Your task to perform on an android device: Go to calendar. Show me events next week Image 0: 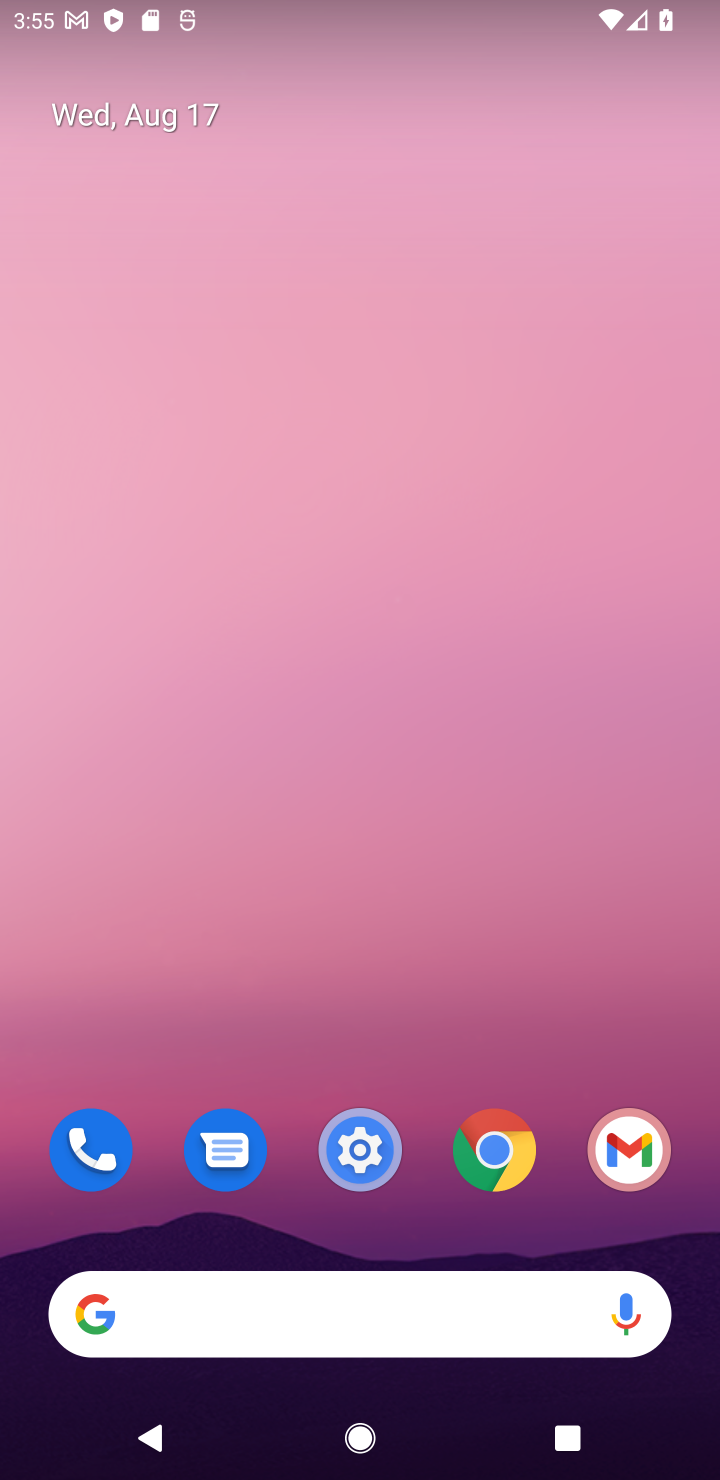
Step 0: drag from (688, 1183) to (351, 10)
Your task to perform on an android device: Go to calendar. Show me events next week Image 1: 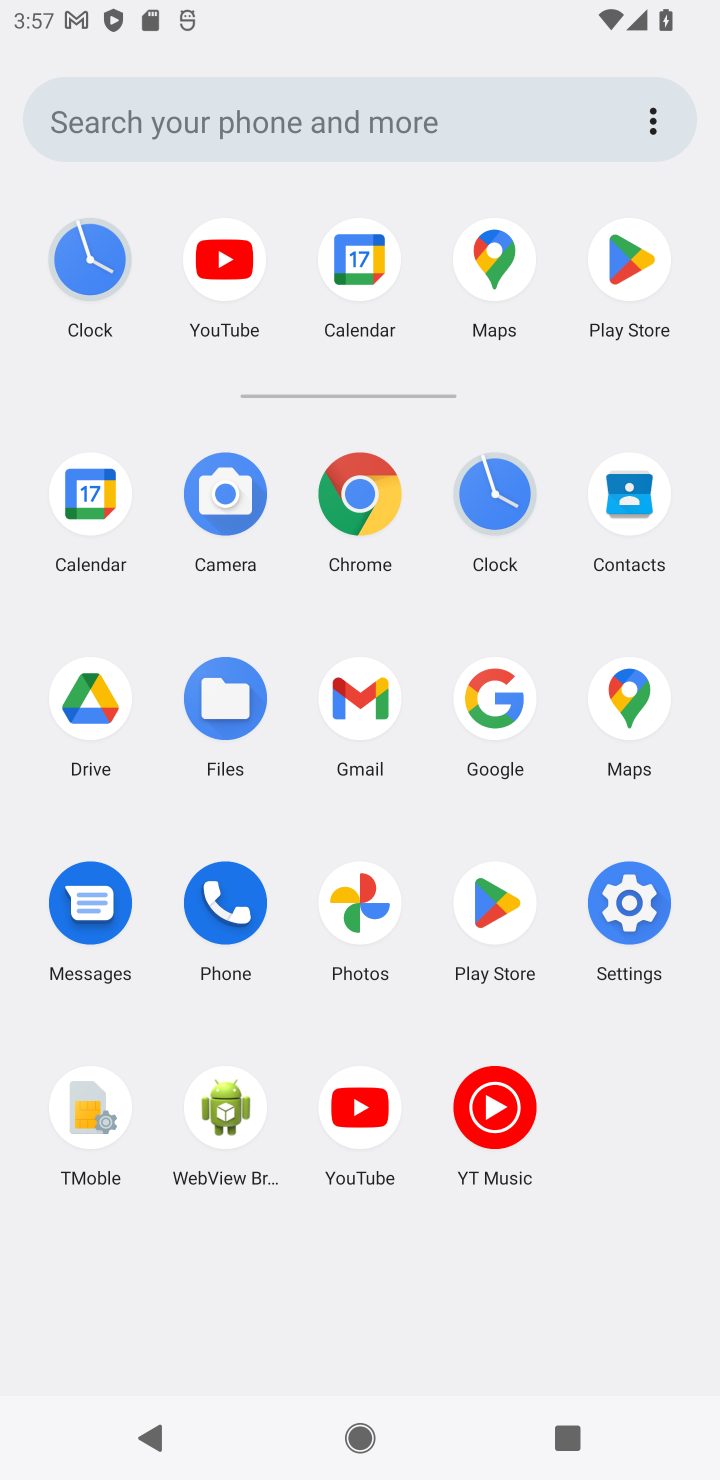
Step 1: click (74, 469)
Your task to perform on an android device: Go to calendar. Show me events next week Image 2: 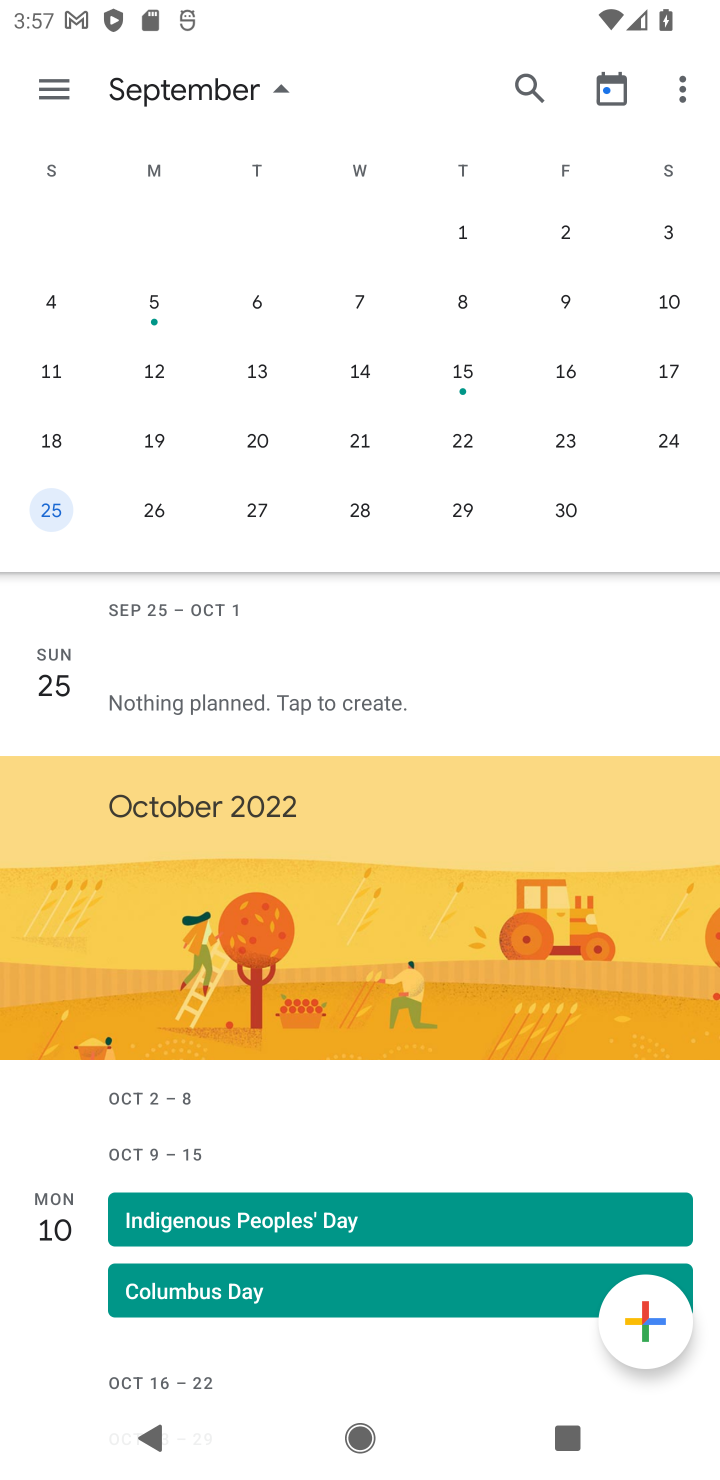
Step 2: task complete